Your task to perform on an android device: Go to CNN.com Image 0: 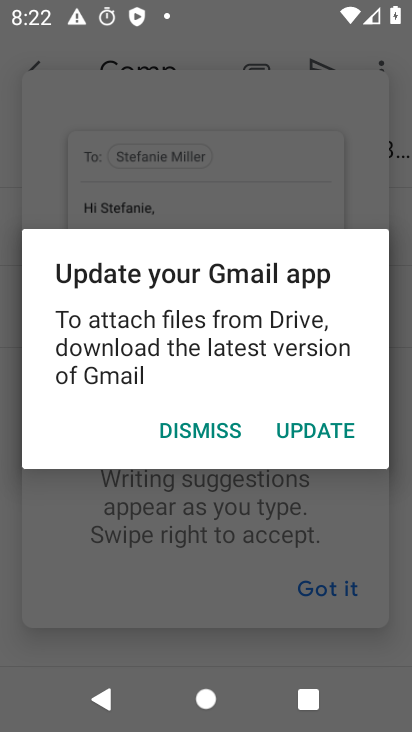
Step 0: press home button
Your task to perform on an android device: Go to CNN.com Image 1: 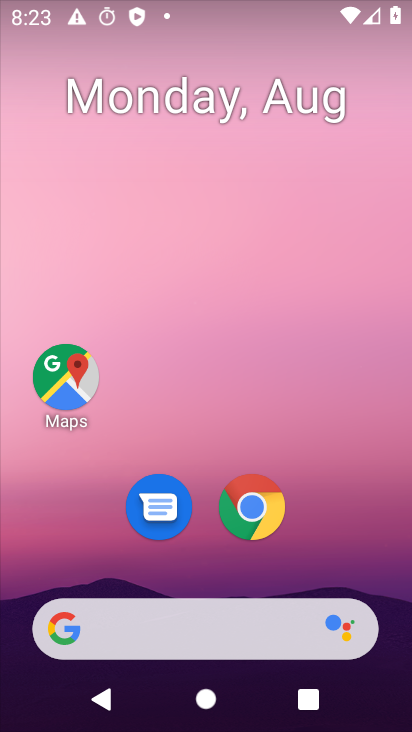
Step 1: click (258, 506)
Your task to perform on an android device: Go to CNN.com Image 2: 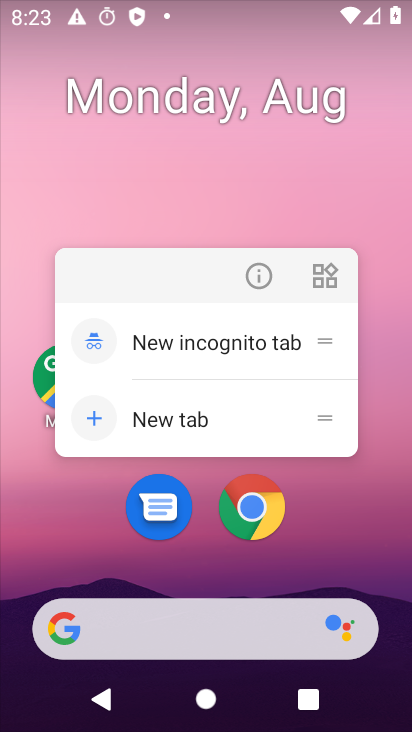
Step 2: click (258, 509)
Your task to perform on an android device: Go to CNN.com Image 3: 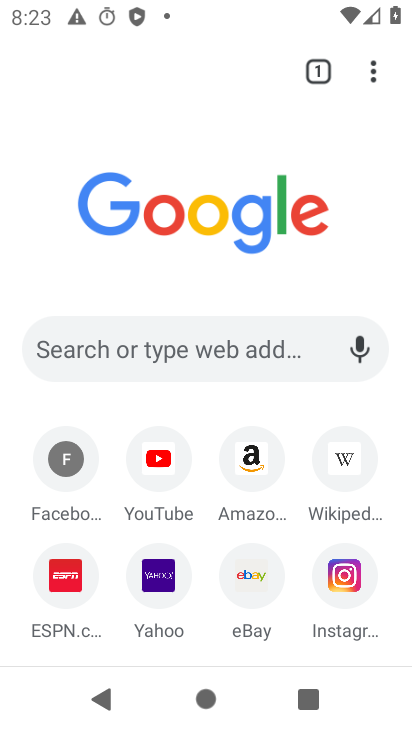
Step 3: click (114, 355)
Your task to perform on an android device: Go to CNN.com Image 4: 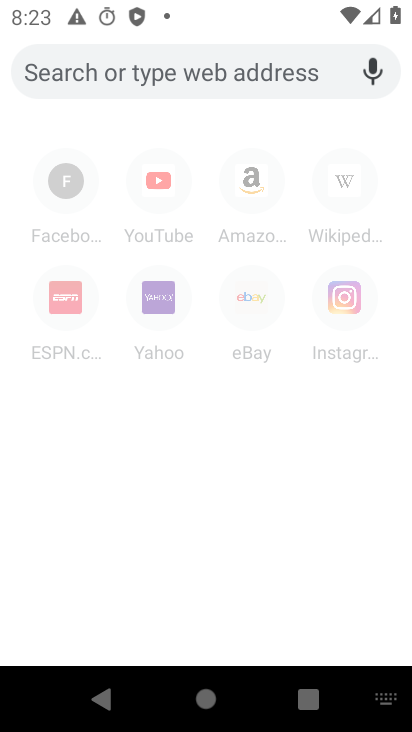
Step 4: type "CNN.com"
Your task to perform on an android device: Go to CNN.com Image 5: 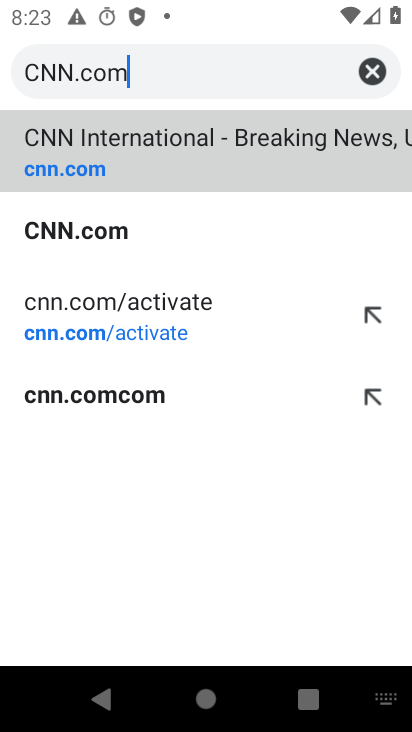
Step 5: click (179, 165)
Your task to perform on an android device: Go to CNN.com Image 6: 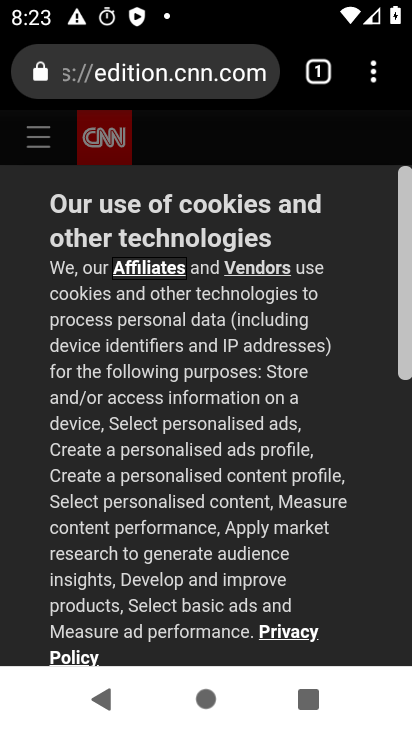
Step 6: drag from (188, 537) to (322, 218)
Your task to perform on an android device: Go to CNN.com Image 7: 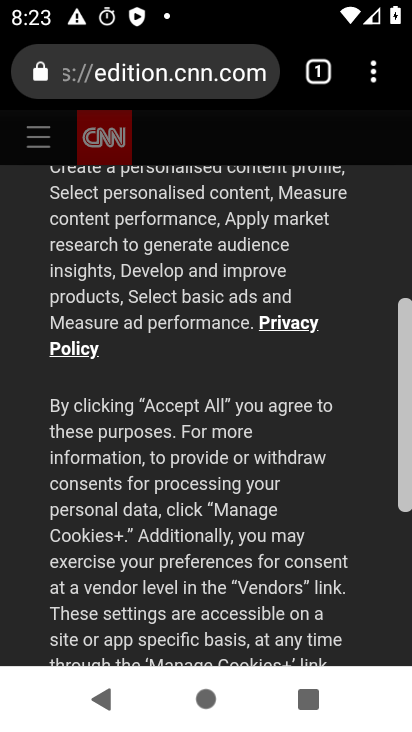
Step 7: drag from (219, 598) to (373, 163)
Your task to perform on an android device: Go to CNN.com Image 8: 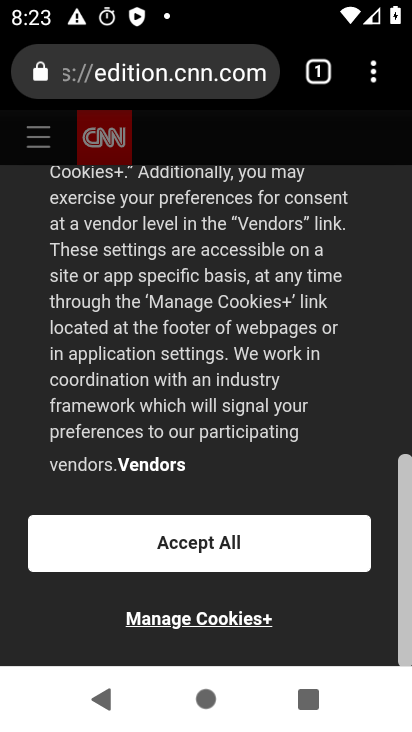
Step 8: click (209, 544)
Your task to perform on an android device: Go to CNN.com Image 9: 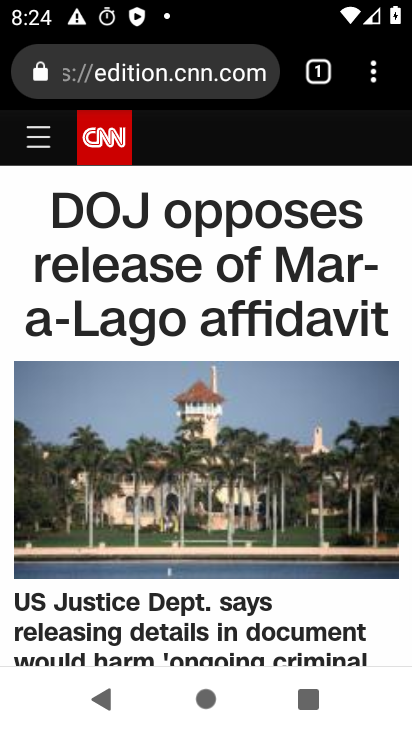
Step 9: task complete